Your task to perform on an android device: turn on airplane mode Image 0: 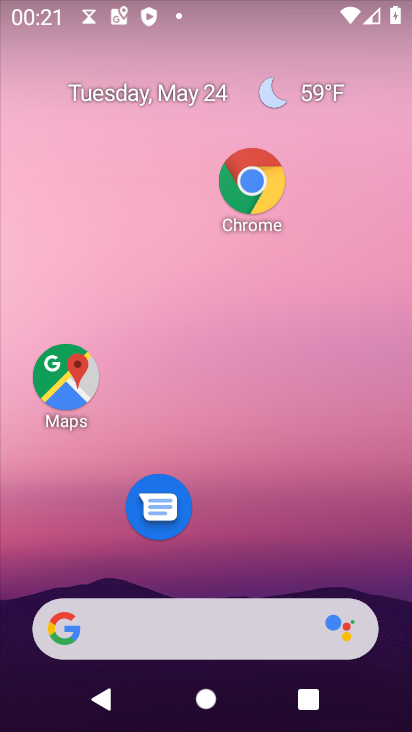
Step 0: drag from (285, 522) to (316, 228)
Your task to perform on an android device: turn on airplane mode Image 1: 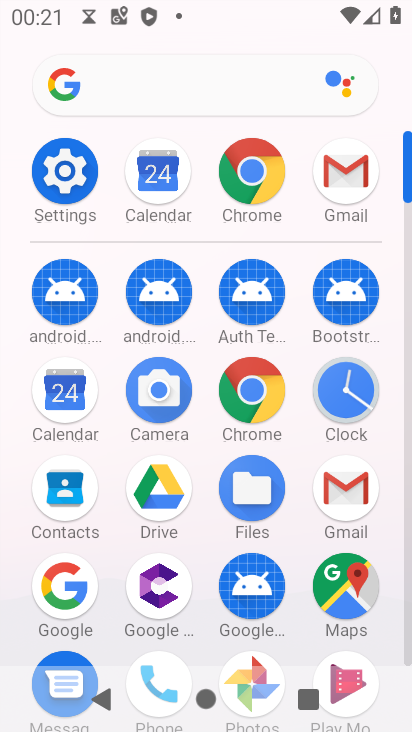
Step 1: click (64, 149)
Your task to perform on an android device: turn on airplane mode Image 2: 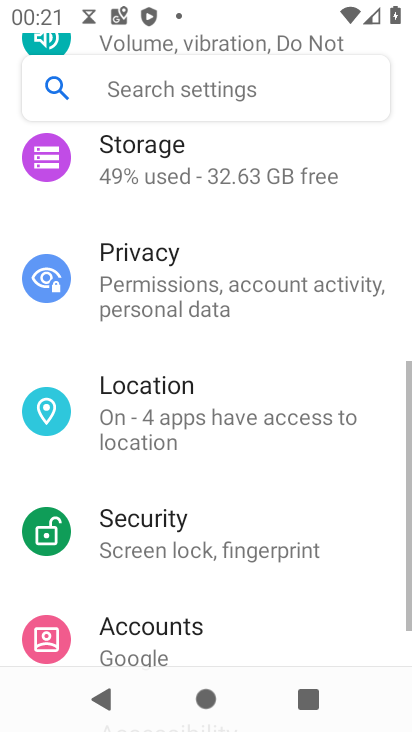
Step 2: drag from (248, 172) to (263, 653)
Your task to perform on an android device: turn on airplane mode Image 3: 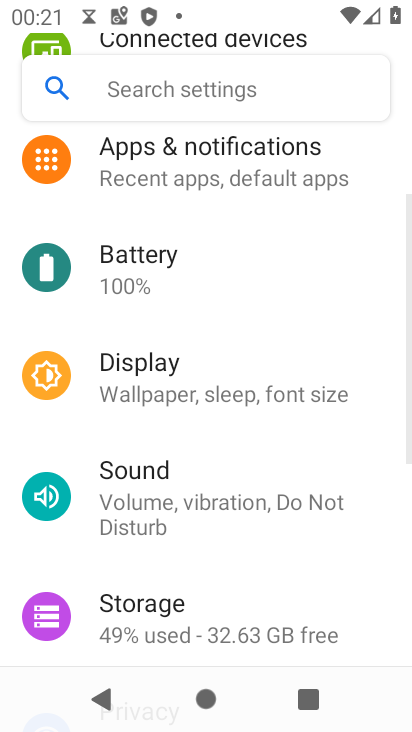
Step 3: drag from (247, 176) to (254, 642)
Your task to perform on an android device: turn on airplane mode Image 4: 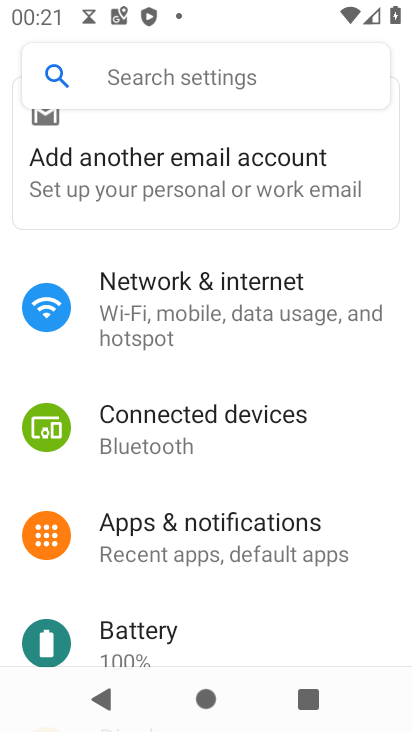
Step 4: click (207, 310)
Your task to perform on an android device: turn on airplane mode Image 5: 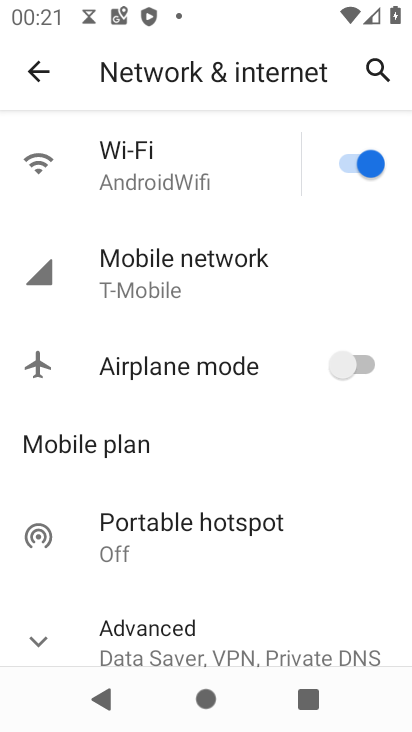
Step 5: click (337, 358)
Your task to perform on an android device: turn on airplane mode Image 6: 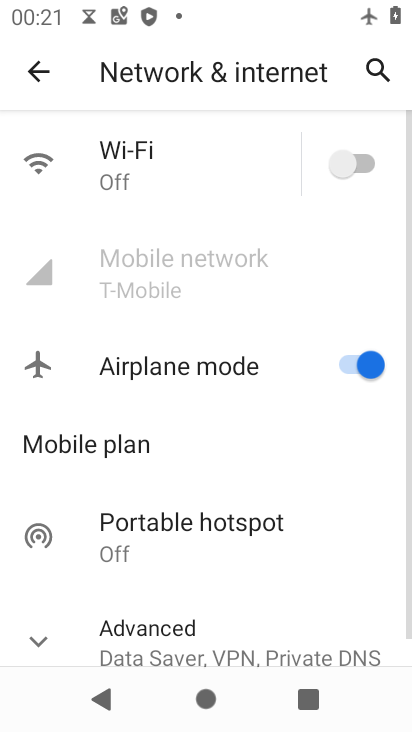
Step 6: task complete